Your task to perform on an android device: Open the Play Movies app and select the watchlist tab. Image 0: 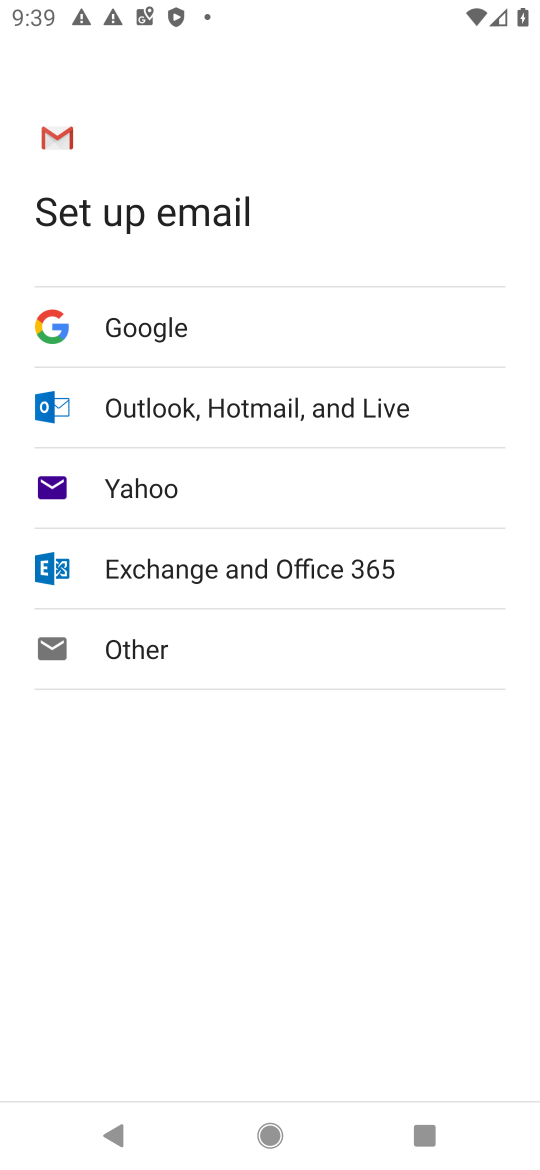
Step 0: press home button
Your task to perform on an android device: Open the Play Movies app and select the watchlist tab. Image 1: 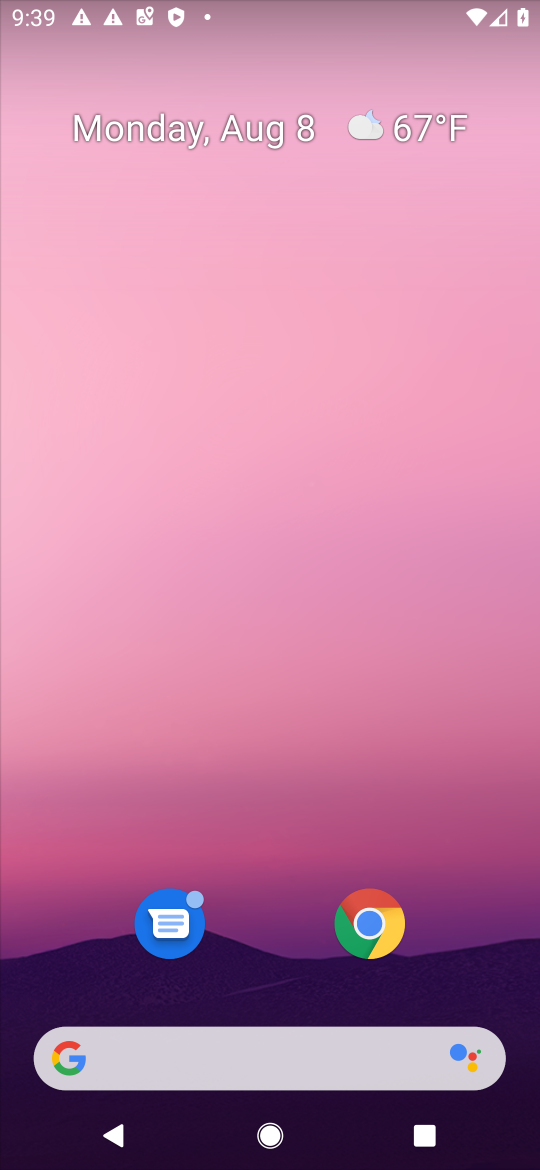
Step 1: drag from (59, 1131) to (302, 304)
Your task to perform on an android device: Open the Play Movies app and select the watchlist tab. Image 2: 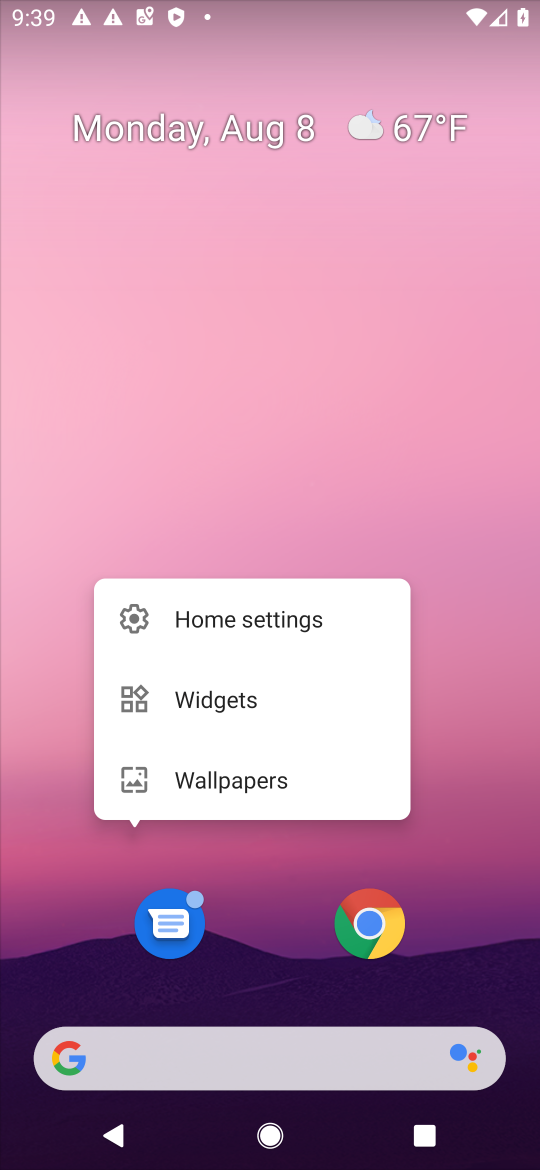
Step 2: drag from (65, 1123) to (327, 279)
Your task to perform on an android device: Open the Play Movies app and select the watchlist tab. Image 3: 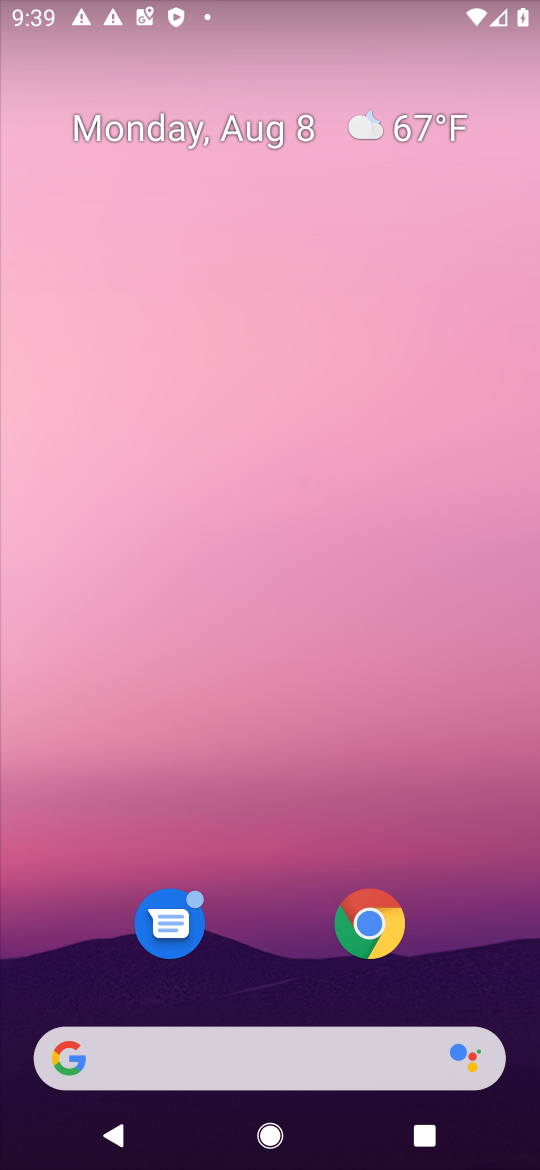
Step 3: drag from (50, 1085) to (122, 178)
Your task to perform on an android device: Open the Play Movies app and select the watchlist tab. Image 4: 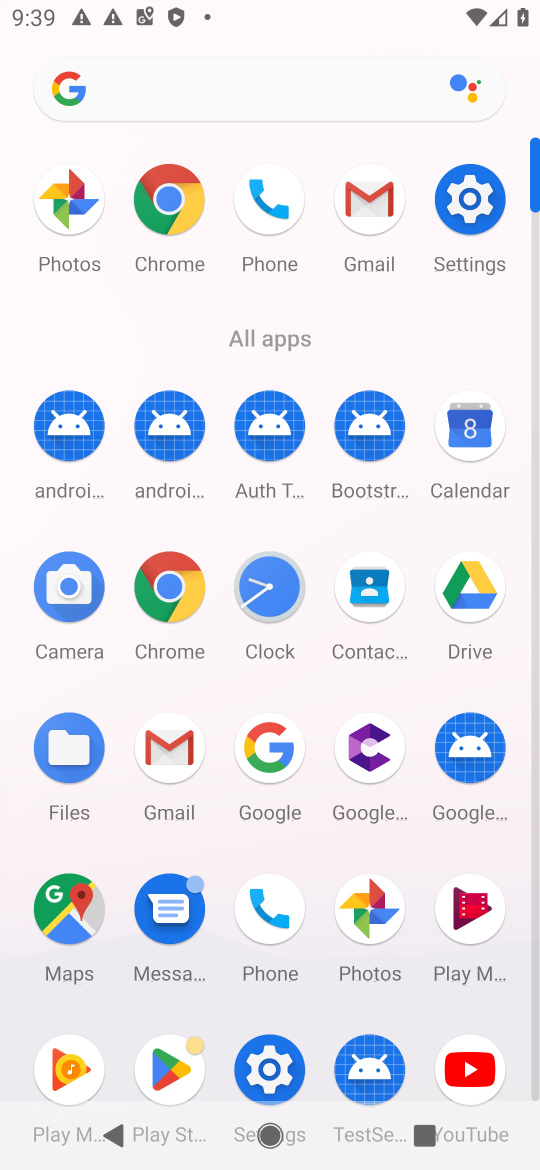
Step 4: click (469, 904)
Your task to perform on an android device: Open the Play Movies app and select the watchlist tab. Image 5: 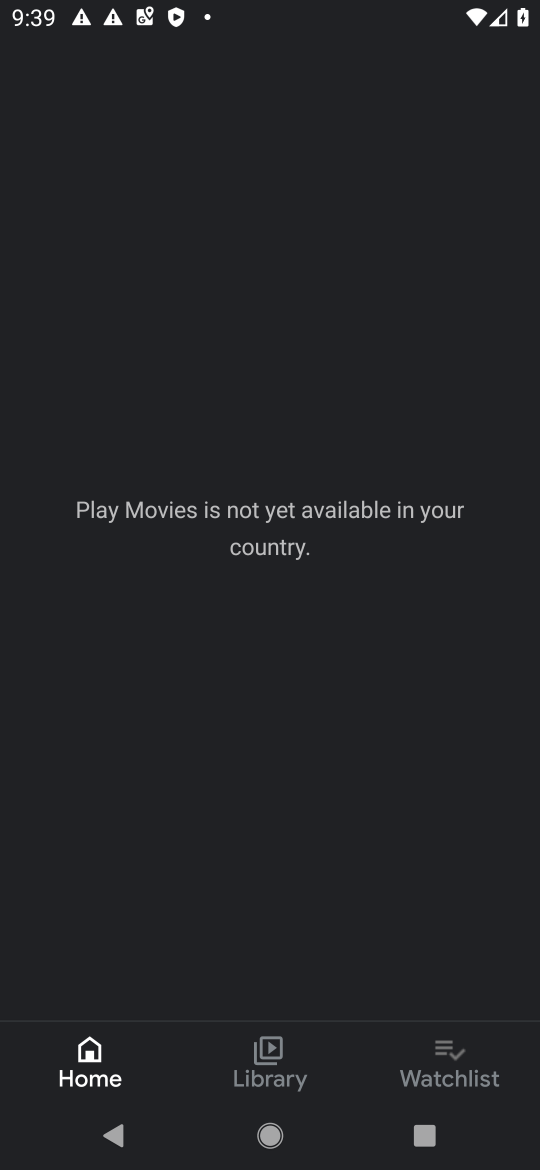
Step 5: click (462, 1075)
Your task to perform on an android device: Open the Play Movies app and select the watchlist tab. Image 6: 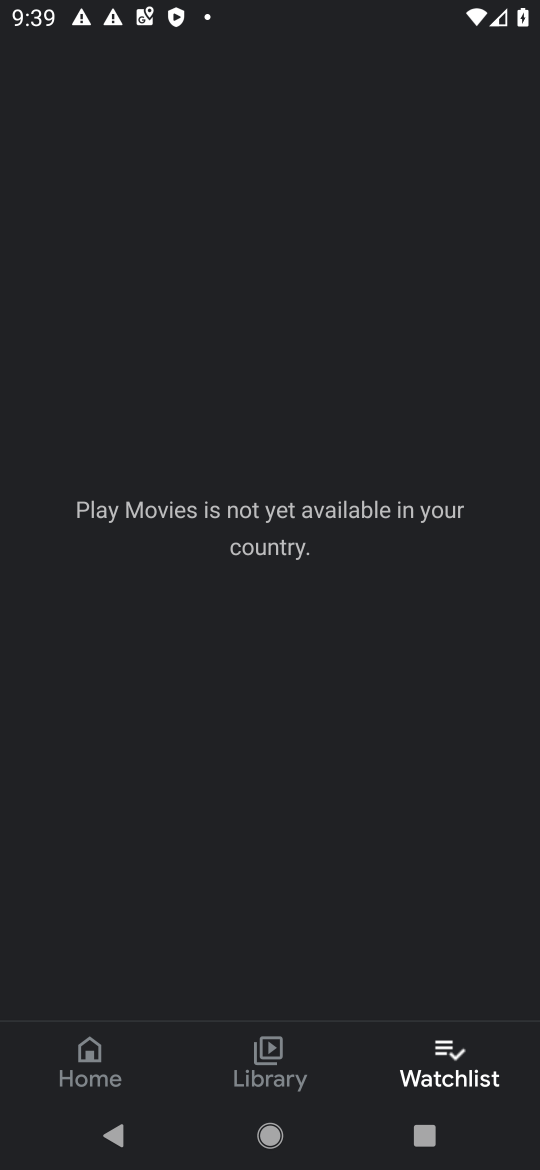
Step 6: task complete